Your task to perform on an android device: toggle sleep mode Image 0: 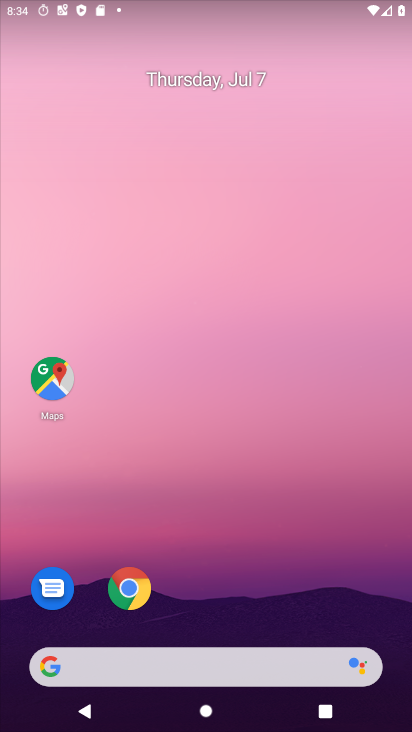
Step 0: drag from (225, 666) to (339, 144)
Your task to perform on an android device: toggle sleep mode Image 1: 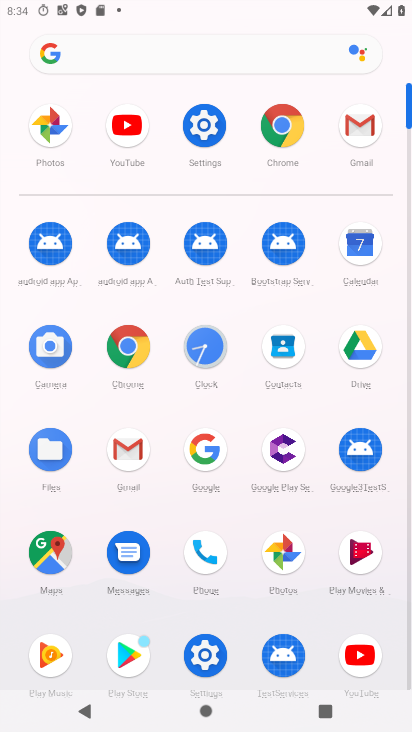
Step 1: click (208, 134)
Your task to perform on an android device: toggle sleep mode Image 2: 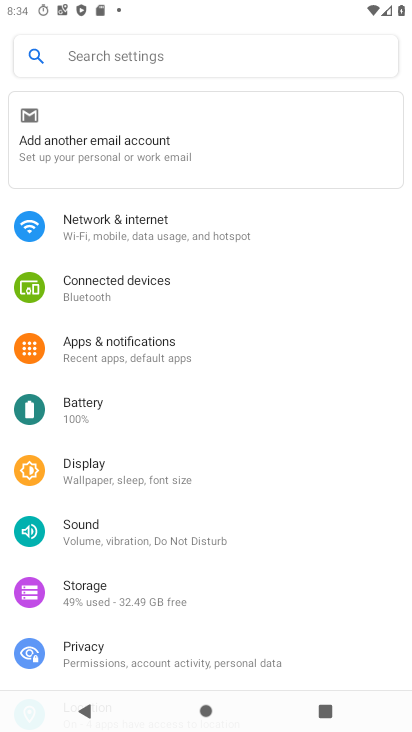
Step 2: click (99, 482)
Your task to perform on an android device: toggle sleep mode Image 3: 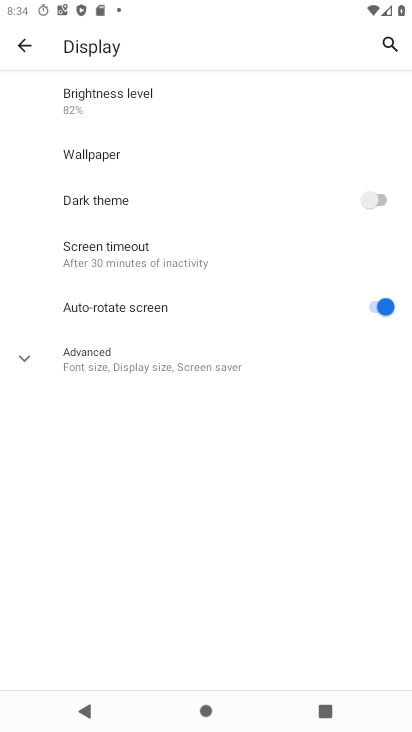
Step 3: task complete